Your task to perform on an android device: Add "razer blade" to the cart on target.com, then select checkout. Image 0: 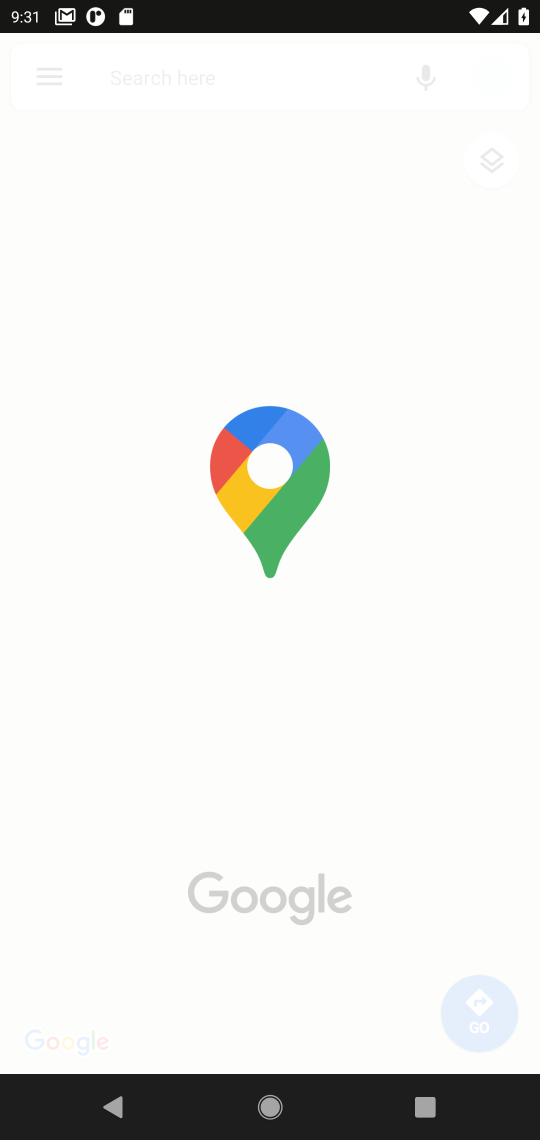
Step 0: click (389, 911)
Your task to perform on an android device: Add "razer blade" to the cart on target.com, then select checkout. Image 1: 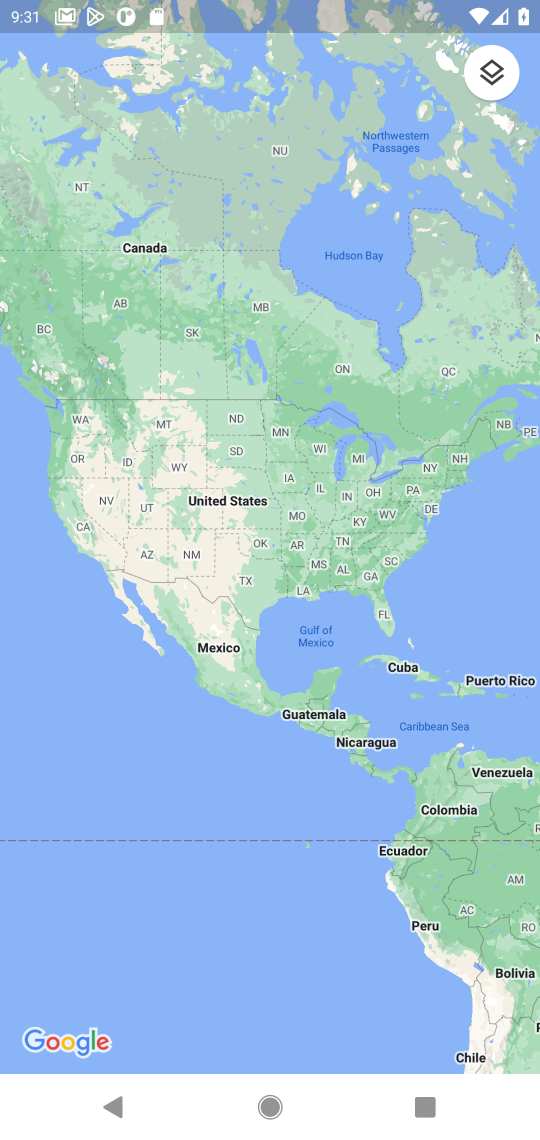
Step 1: press home button
Your task to perform on an android device: Add "razer blade" to the cart on target.com, then select checkout. Image 2: 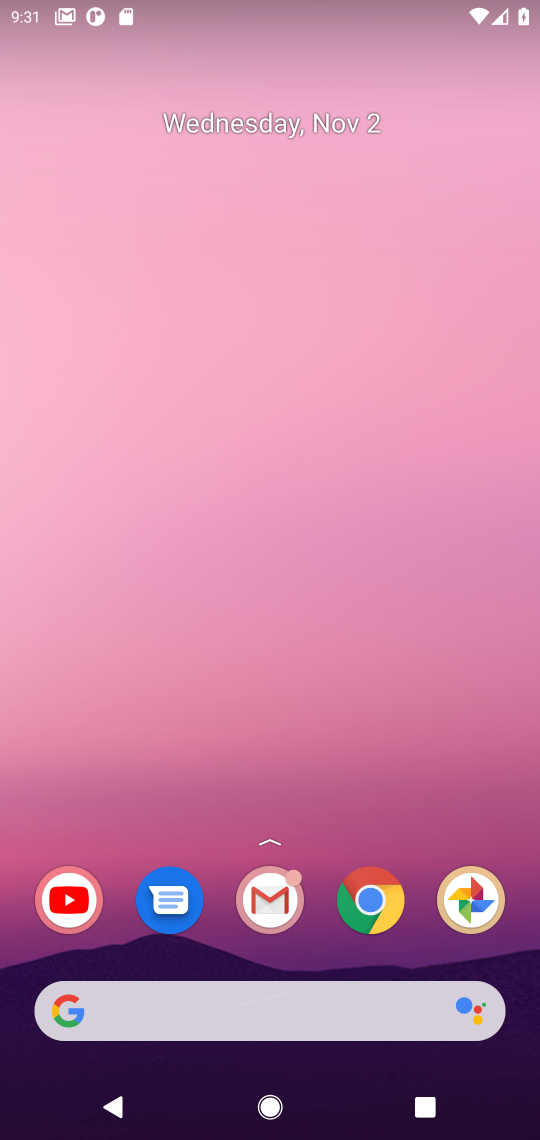
Step 2: click (387, 905)
Your task to perform on an android device: Add "razer blade" to the cart on target.com, then select checkout. Image 3: 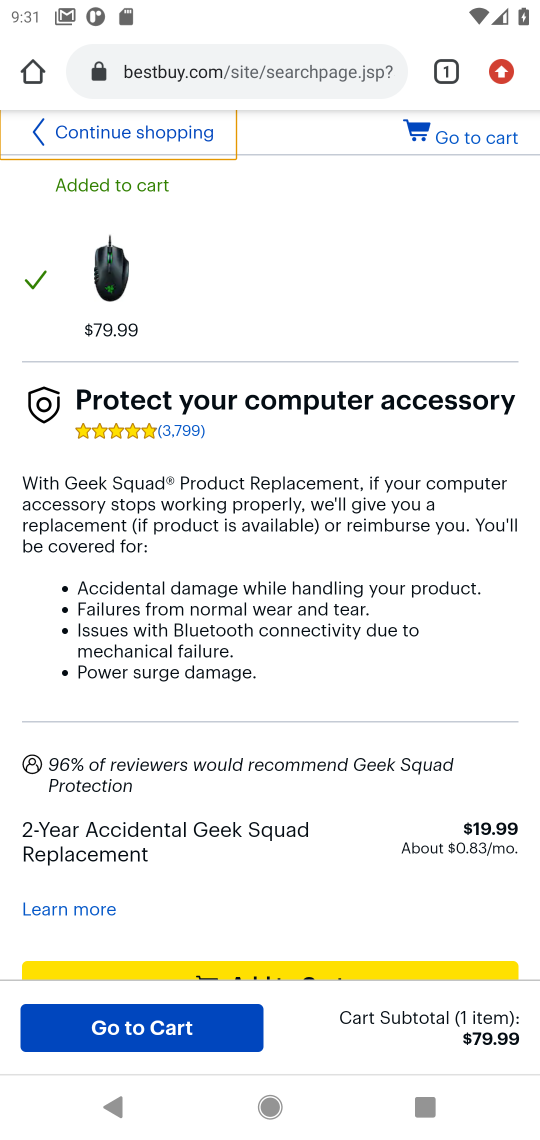
Step 3: click (220, 65)
Your task to perform on an android device: Add "razer blade" to the cart on target.com, then select checkout. Image 4: 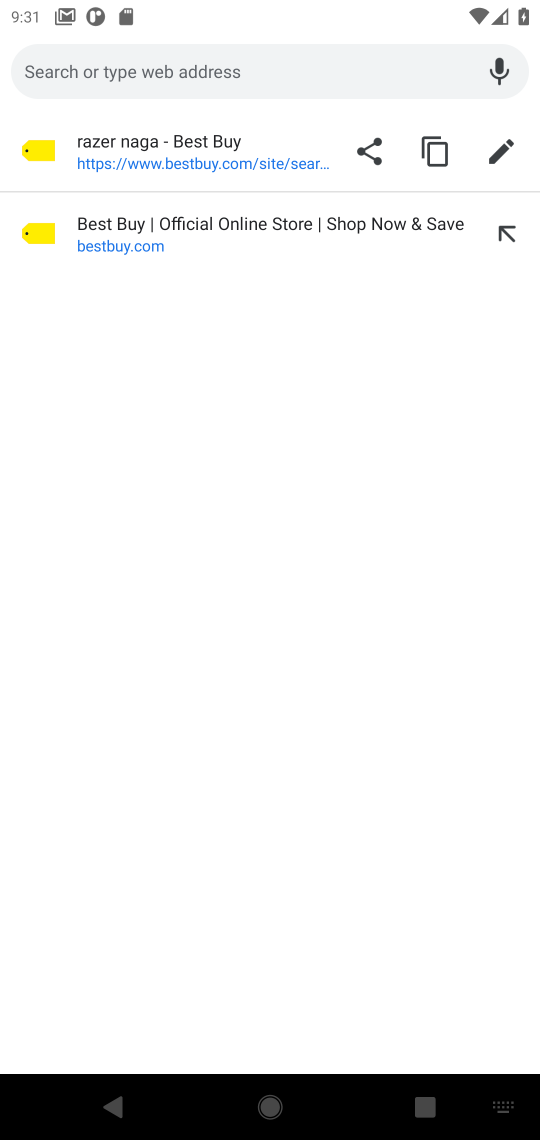
Step 4: type "target"
Your task to perform on an android device: Add "razer blade" to the cart on target.com, then select checkout. Image 5: 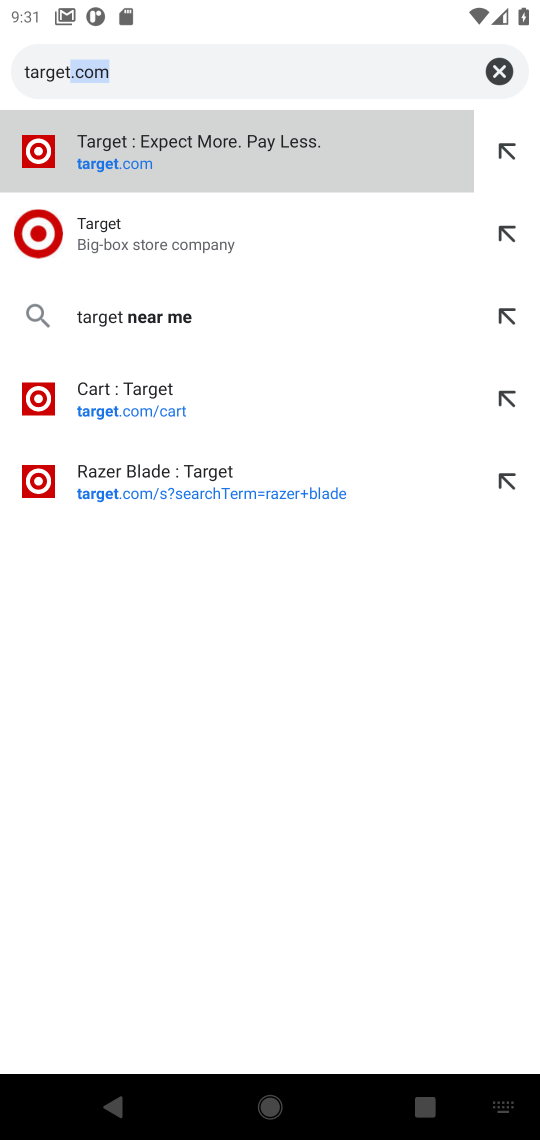
Step 5: click (202, 255)
Your task to perform on an android device: Add "razer blade" to the cart on target.com, then select checkout. Image 6: 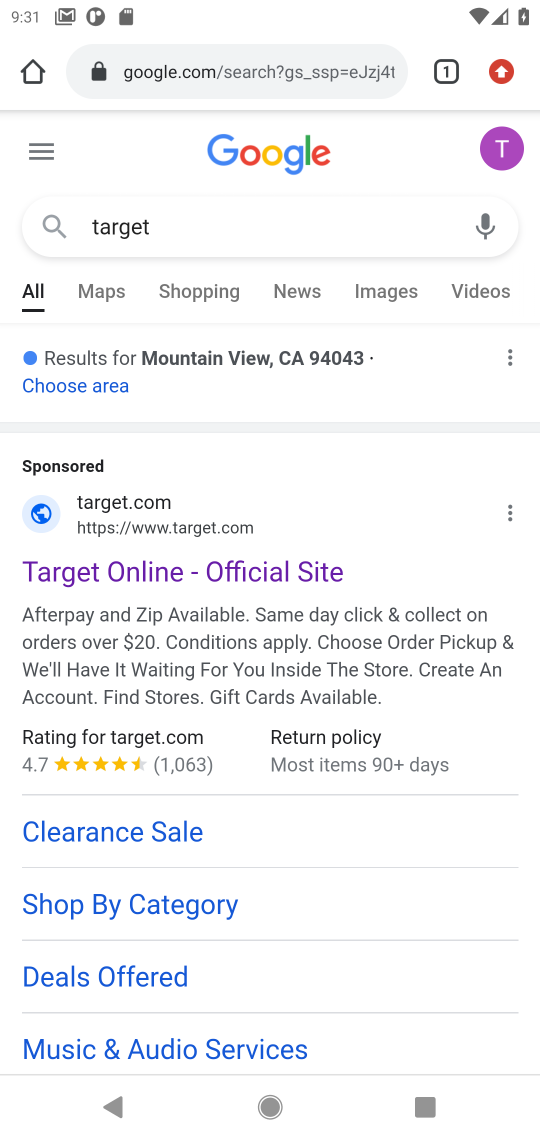
Step 6: click (114, 563)
Your task to perform on an android device: Add "razer blade" to the cart on target.com, then select checkout. Image 7: 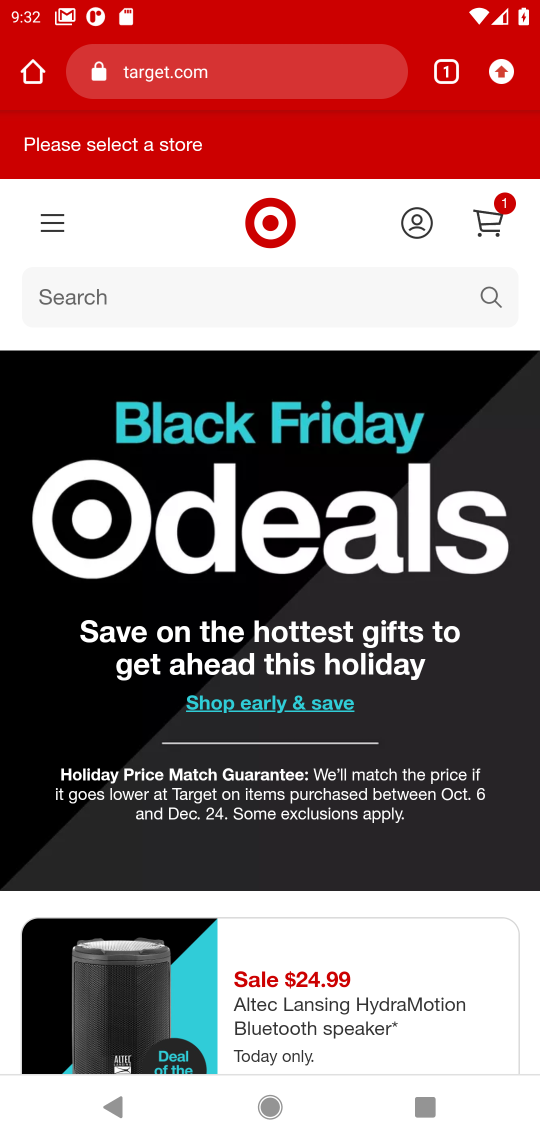
Step 7: click (223, 287)
Your task to perform on an android device: Add "razer blade" to the cart on target.com, then select checkout. Image 8: 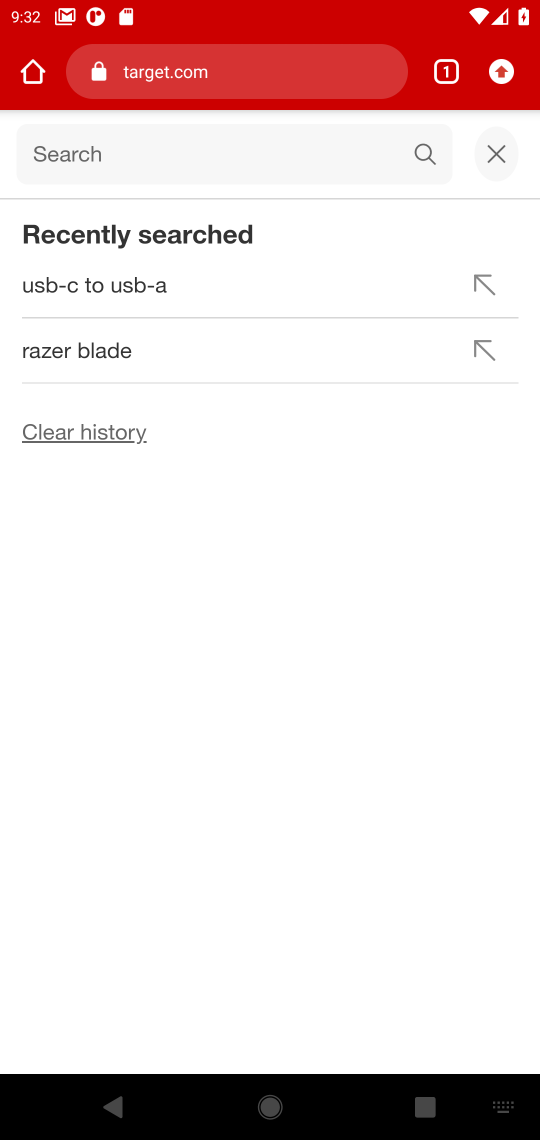
Step 8: type "razer blade"
Your task to perform on an android device: Add "razer blade" to the cart on target.com, then select checkout. Image 9: 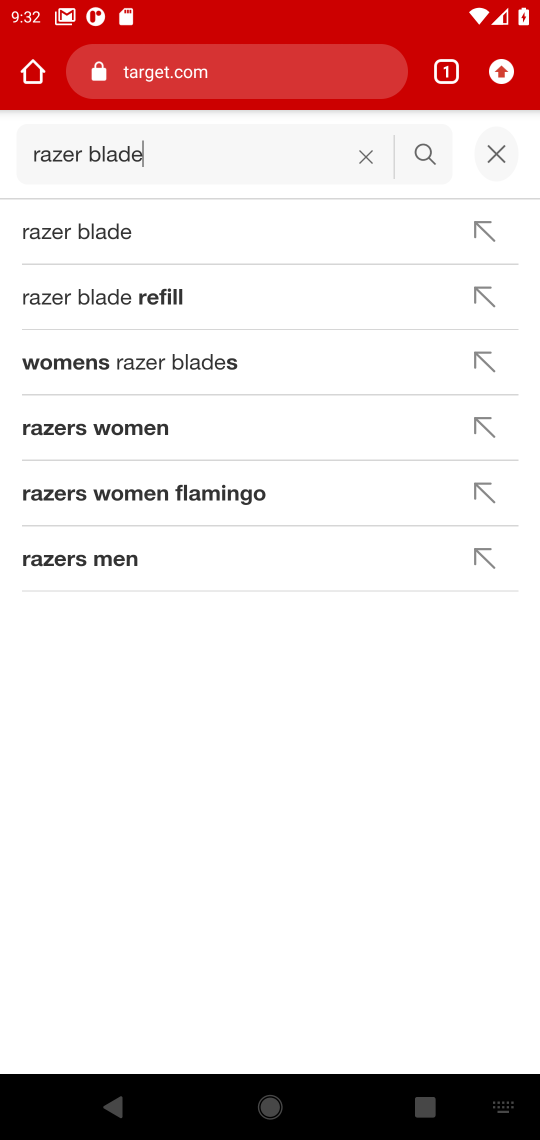
Step 9: click (134, 232)
Your task to perform on an android device: Add "razer blade" to the cart on target.com, then select checkout. Image 10: 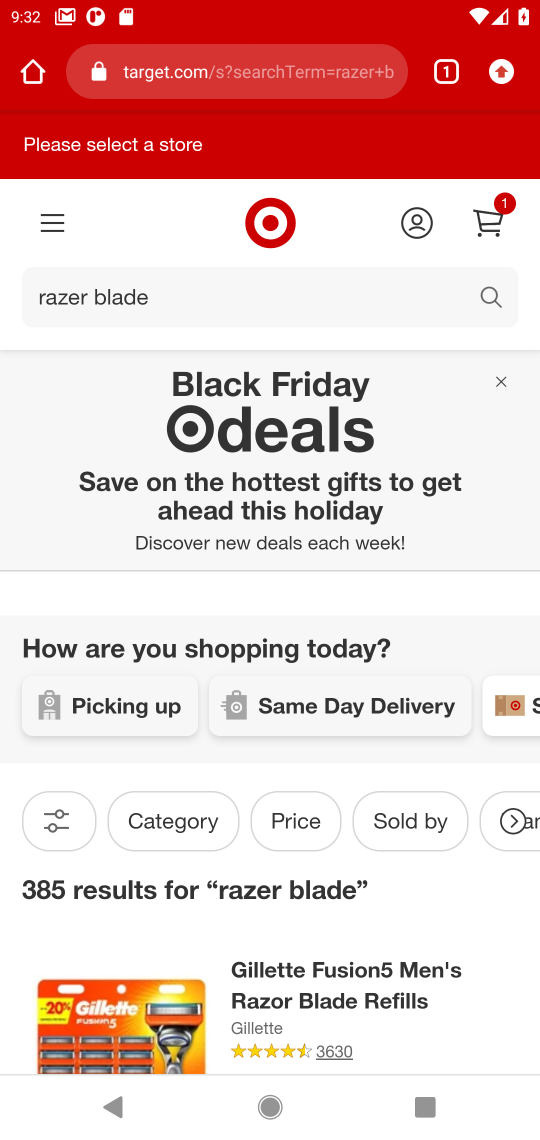
Step 10: task complete